Your task to perform on an android device: Open Maps and search for coffee Image 0: 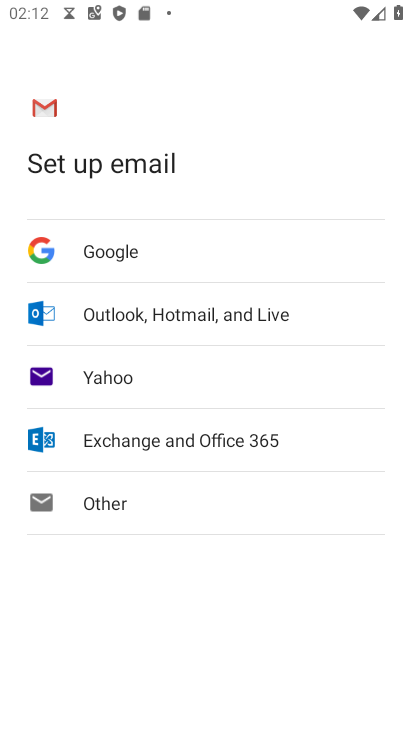
Step 0: press home button
Your task to perform on an android device: Open Maps and search for coffee Image 1: 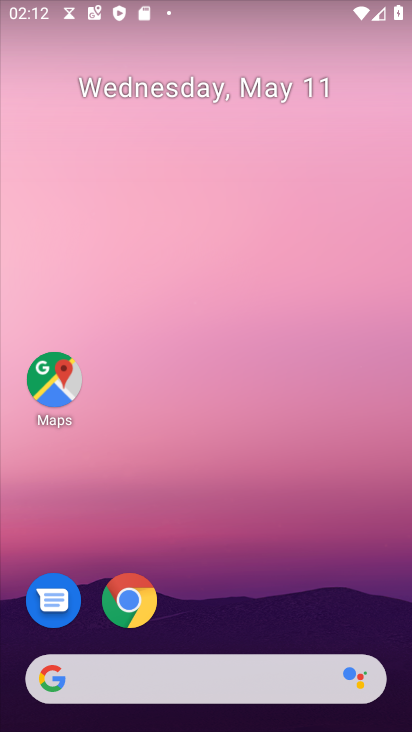
Step 1: click (54, 373)
Your task to perform on an android device: Open Maps and search for coffee Image 2: 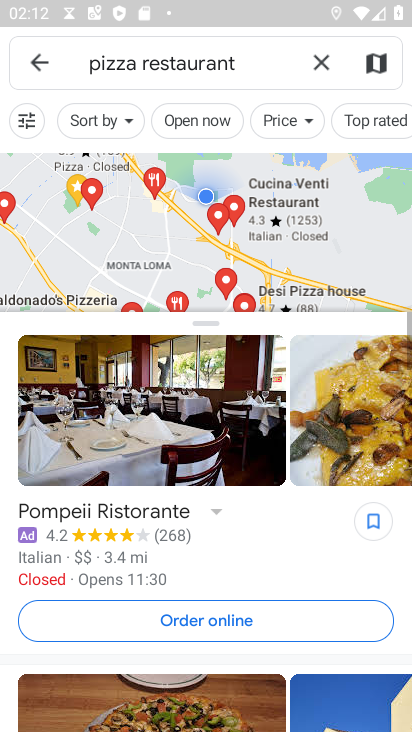
Step 2: click (319, 60)
Your task to perform on an android device: Open Maps and search for coffee Image 3: 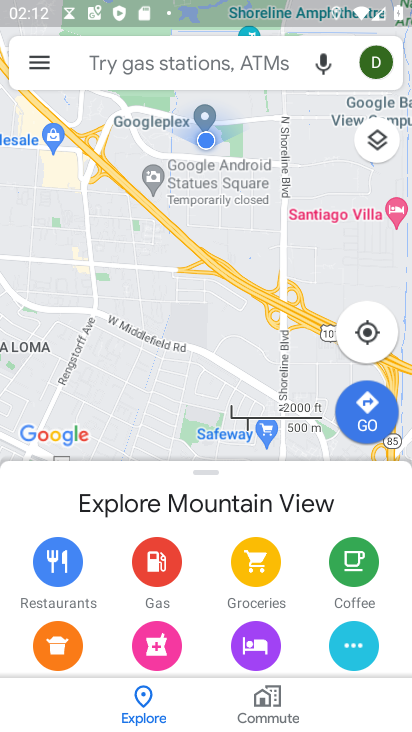
Step 3: click (189, 56)
Your task to perform on an android device: Open Maps and search for coffee Image 4: 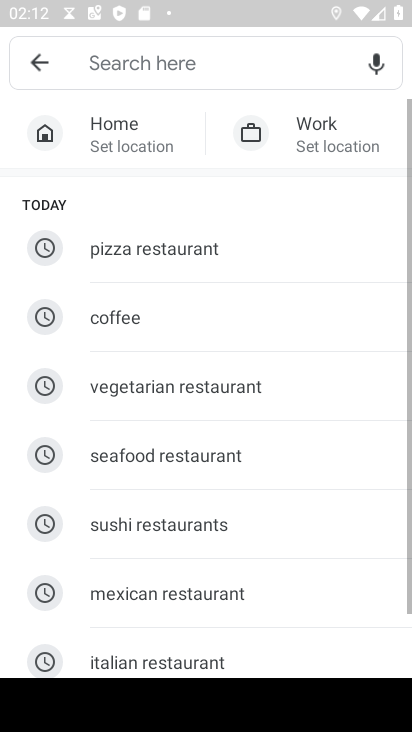
Step 4: click (174, 321)
Your task to perform on an android device: Open Maps and search for coffee Image 5: 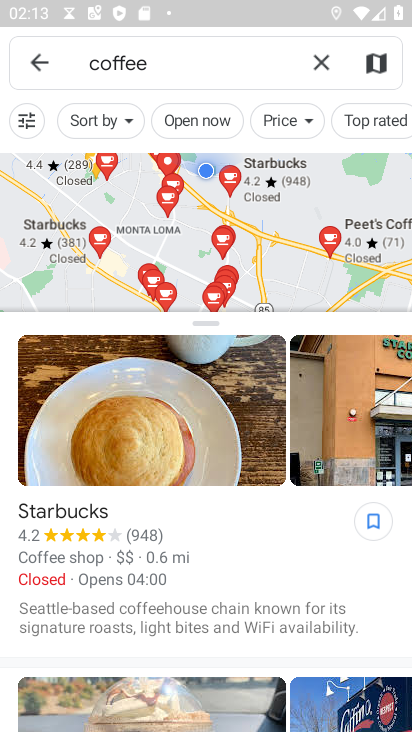
Step 5: task complete